Your task to perform on an android device: uninstall "The Home Depot" Image 0: 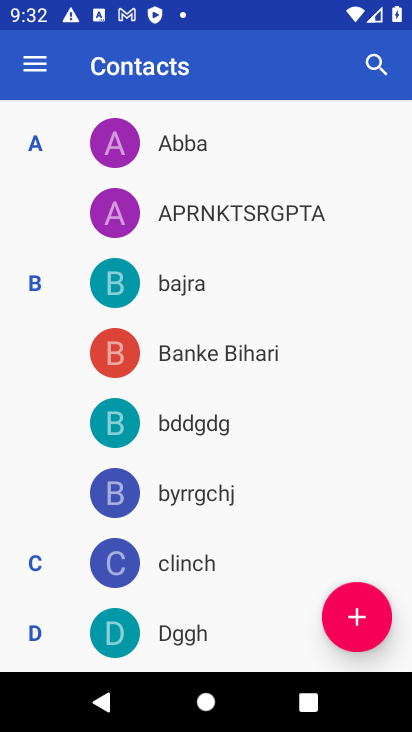
Step 0: drag from (191, 572) to (200, 499)
Your task to perform on an android device: uninstall "The Home Depot" Image 1: 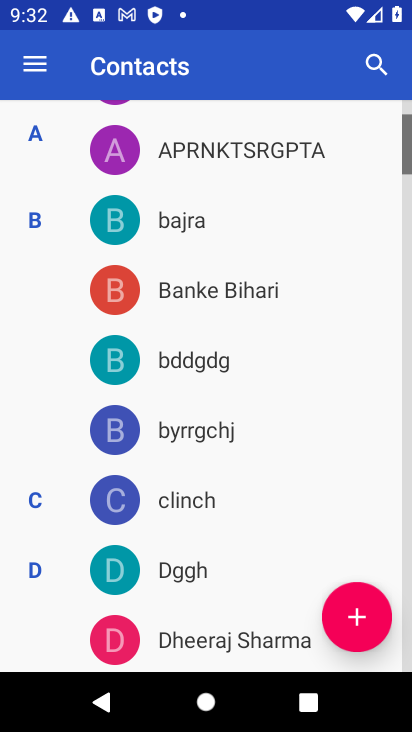
Step 1: press home button
Your task to perform on an android device: uninstall "The Home Depot" Image 2: 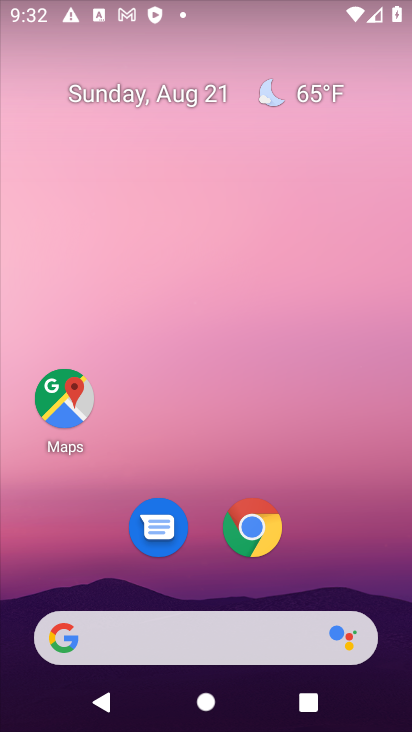
Step 2: drag from (202, 592) to (290, 4)
Your task to perform on an android device: uninstall "The Home Depot" Image 3: 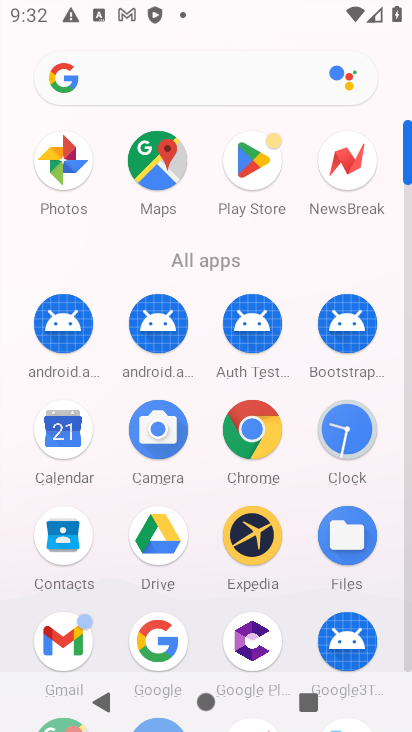
Step 3: click (245, 166)
Your task to perform on an android device: uninstall "The Home Depot" Image 4: 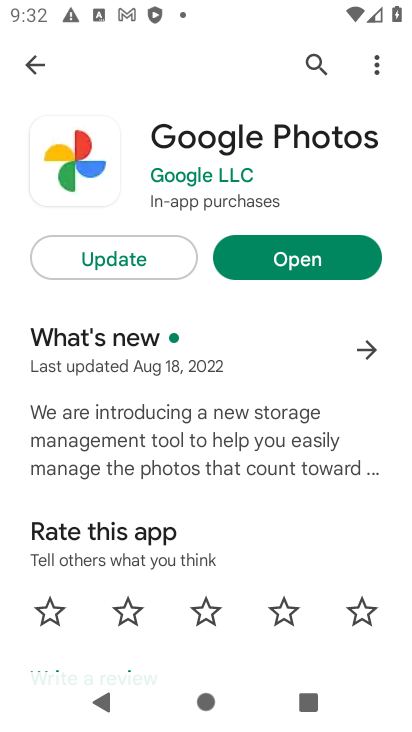
Step 4: click (32, 71)
Your task to perform on an android device: uninstall "The Home Depot" Image 5: 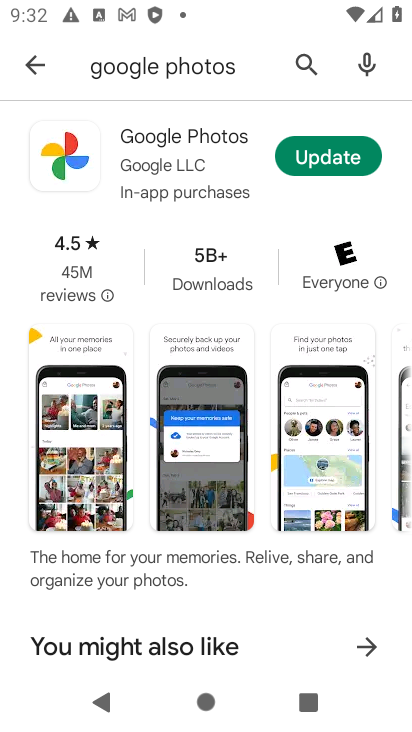
Step 5: click (137, 77)
Your task to perform on an android device: uninstall "The Home Depot" Image 6: 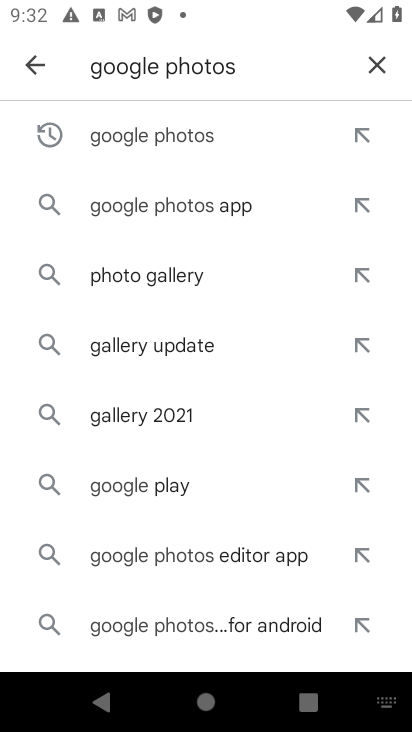
Step 6: click (367, 72)
Your task to perform on an android device: uninstall "The Home Depot" Image 7: 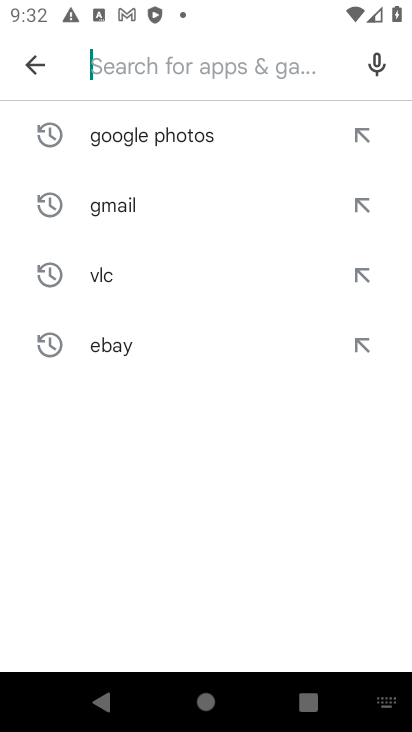
Step 7: type "the home dep"
Your task to perform on an android device: uninstall "The Home Depot" Image 8: 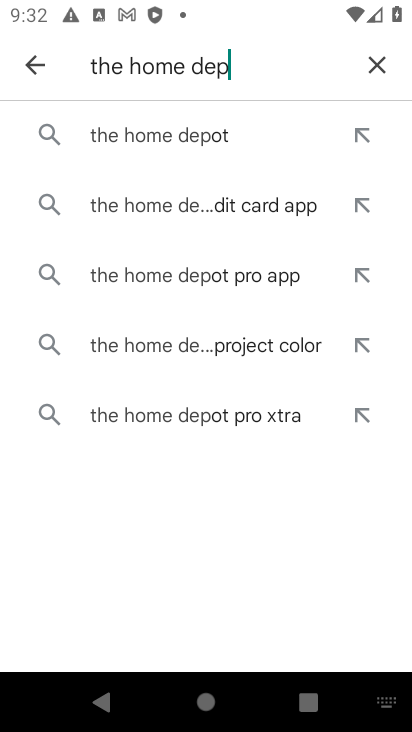
Step 8: click (161, 137)
Your task to perform on an android device: uninstall "The Home Depot" Image 9: 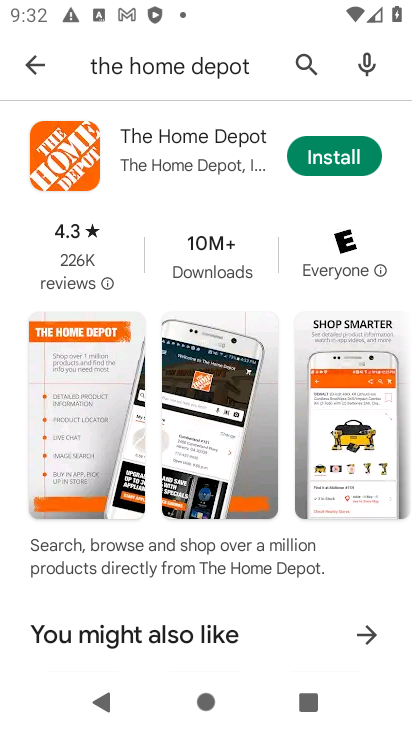
Step 9: task complete